Your task to perform on an android device: Search for sushi restaurants on Maps Image 0: 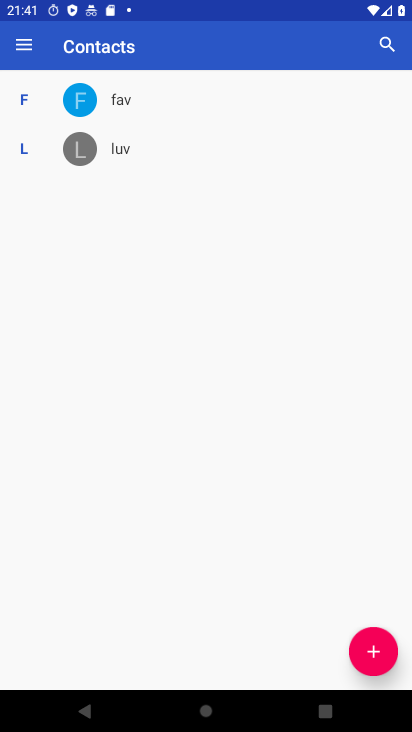
Step 0: click (78, 11)
Your task to perform on an android device: Search for sushi restaurants on Maps Image 1: 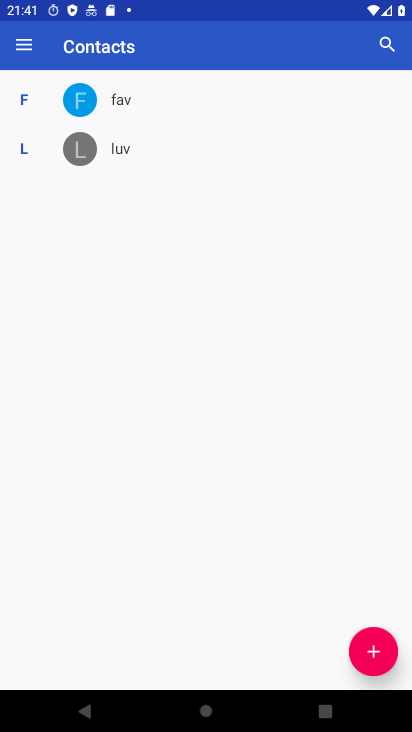
Step 1: press back button
Your task to perform on an android device: Search for sushi restaurants on Maps Image 2: 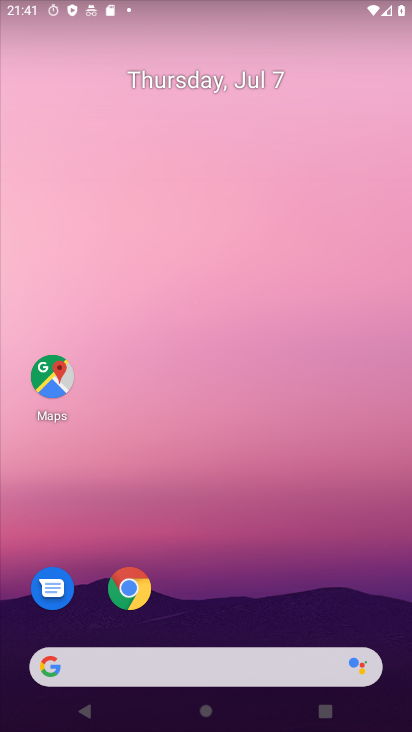
Step 2: drag from (226, 478) to (115, 0)
Your task to perform on an android device: Search for sushi restaurants on Maps Image 3: 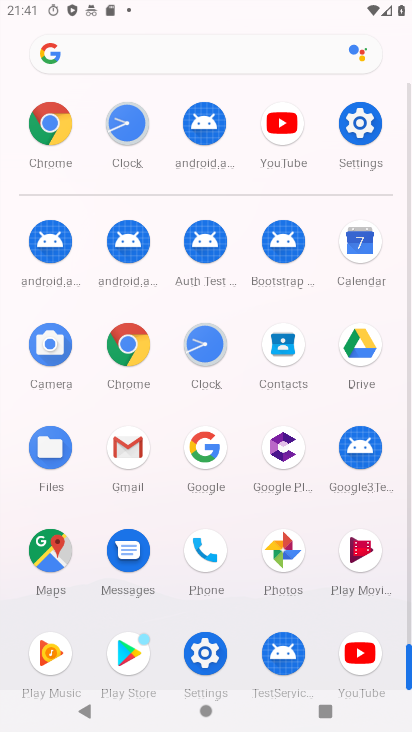
Step 3: click (37, 558)
Your task to perform on an android device: Search for sushi restaurants on Maps Image 4: 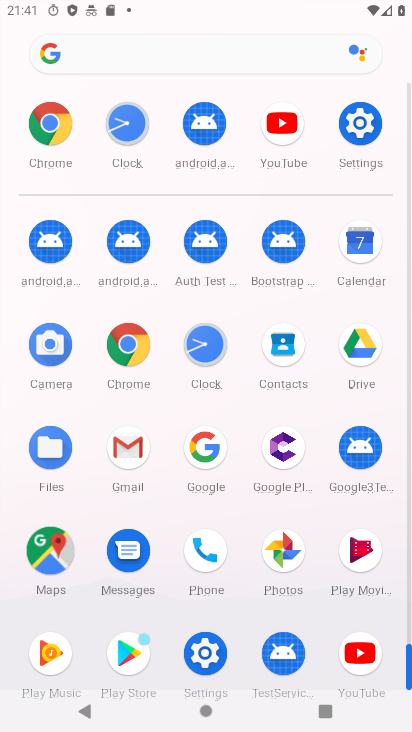
Step 4: click (43, 557)
Your task to perform on an android device: Search for sushi restaurants on Maps Image 5: 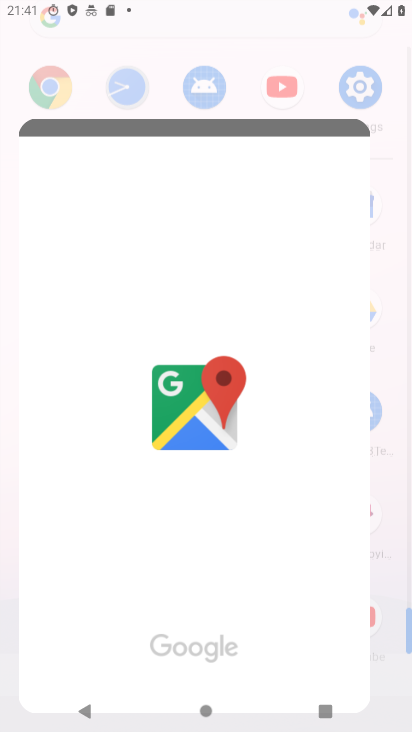
Step 5: click (43, 557)
Your task to perform on an android device: Search for sushi restaurants on Maps Image 6: 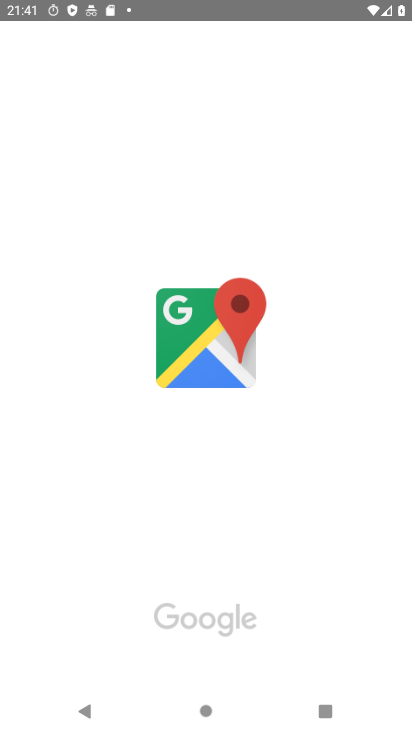
Step 6: click (44, 556)
Your task to perform on an android device: Search for sushi restaurants on Maps Image 7: 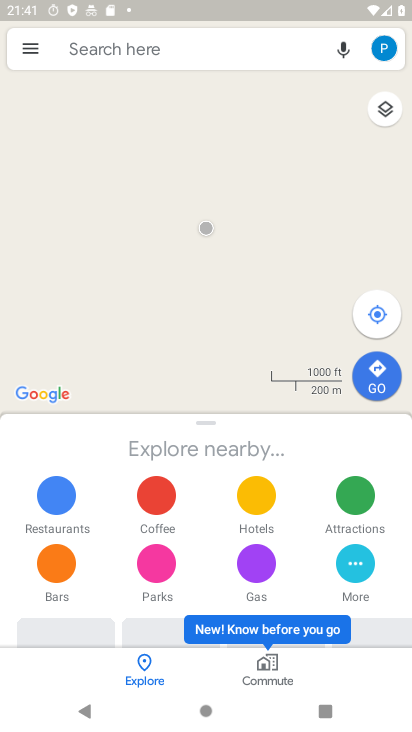
Step 7: click (90, 45)
Your task to perform on an android device: Search for sushi restaurants on Maps Image 8: 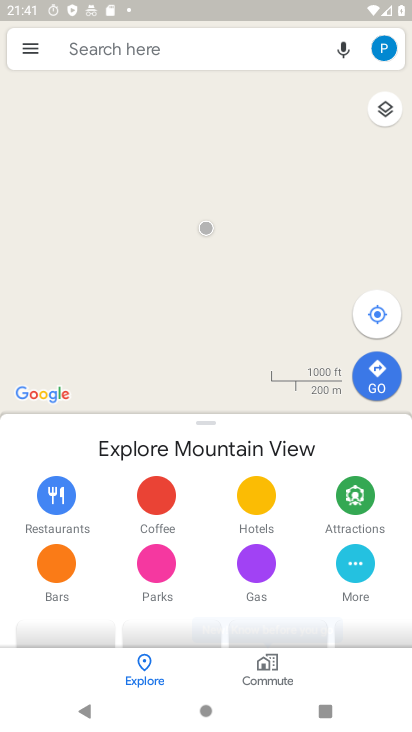
Step 8: click (90, 45)
Your task to perform on an android device: Search for sushi restaurants on Maps Image 9: 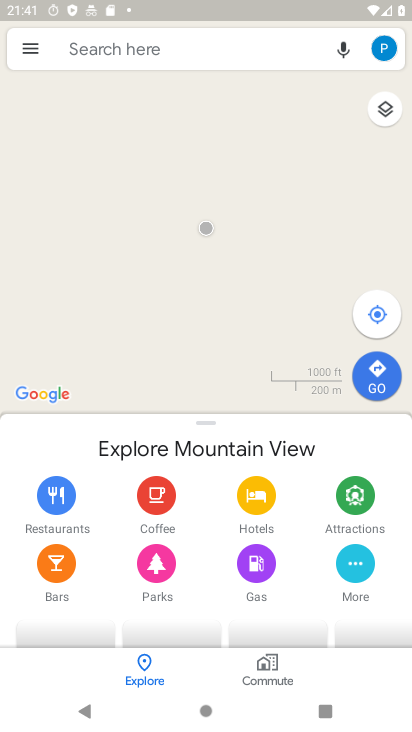
Step 9: click (90, 45)
Your task to perform on an android device: Search for sushi restaurants on Maps Image 10: 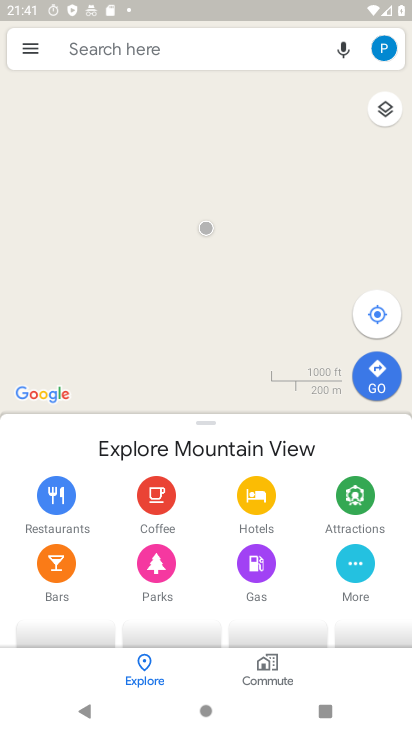
Step 10: click (89, 45)
Your task to perform on an android device: Search for sushi restaurants on Maps Image 11: 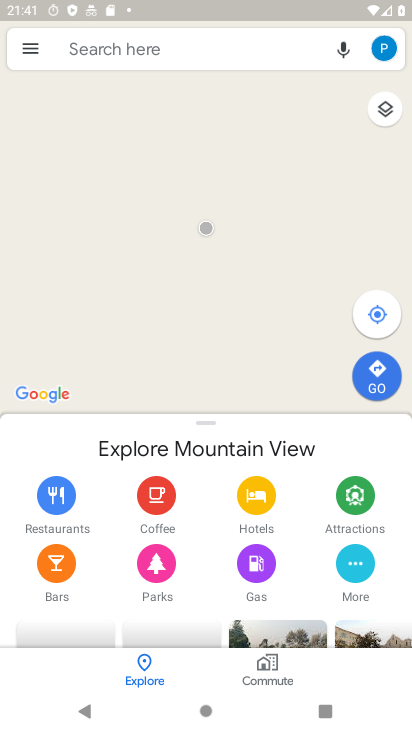
Step 11: click (89, 45)
Your task to perform on an android device: Search for sushi restaurants on Maps Image 12: 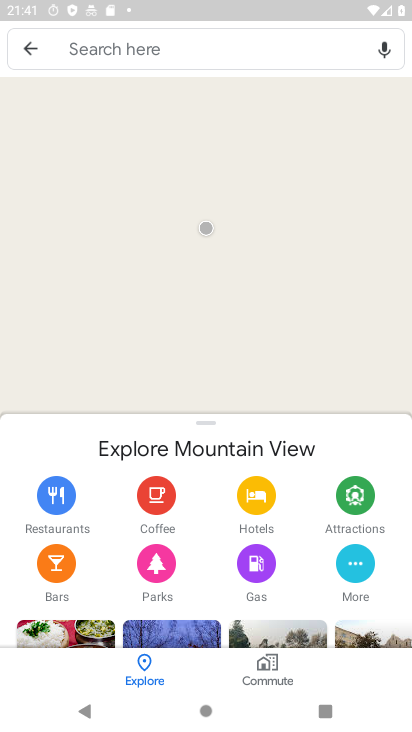
Step 12: click (88, 45)
Your task to perform on an android device: Search for sushi restaurants on Maps Image 13: 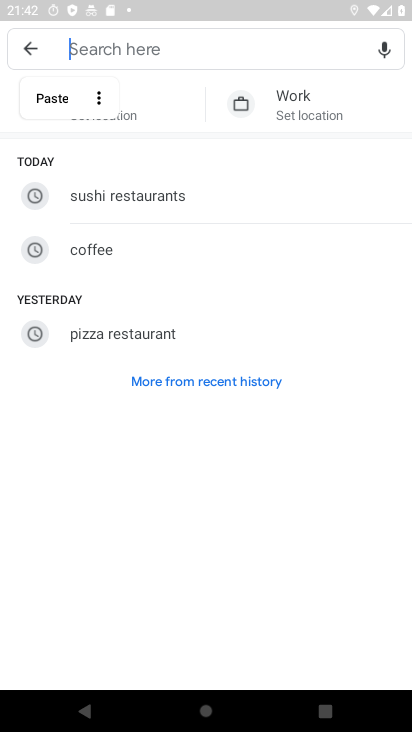
Step 13: type "sushi restaurants"
Your task to perform on an android device: Search for sushi restaurants on Maps Image 14: 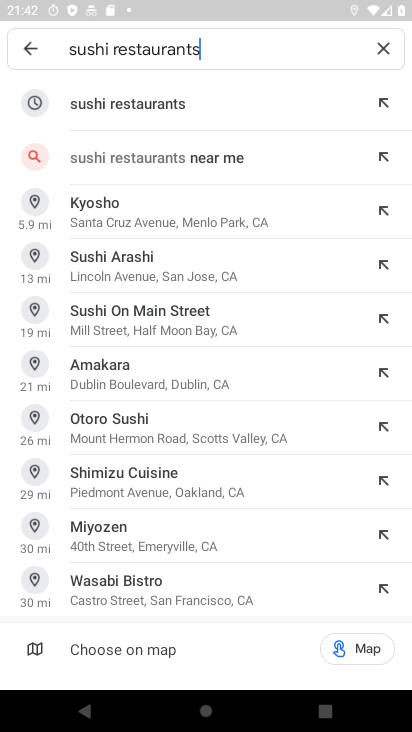
Step 14: click (130, 105)
Your task to perform on an android device: Search for sushi restaurants on Maps Image 15: 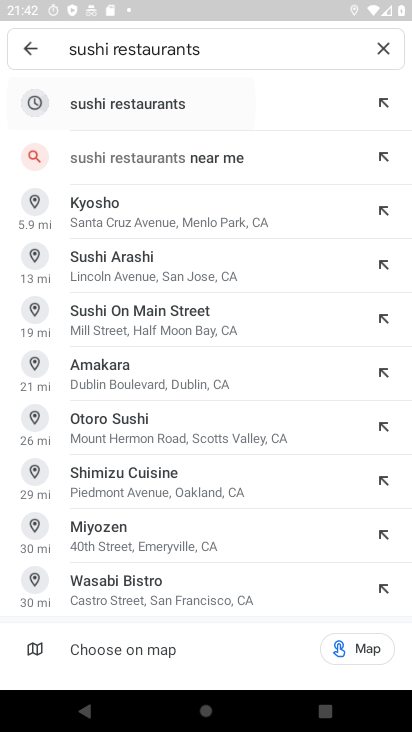
Step 15: click (130, 105)
Your task to perform on an android device: Search for sushi restaurants on Maps Image 16: 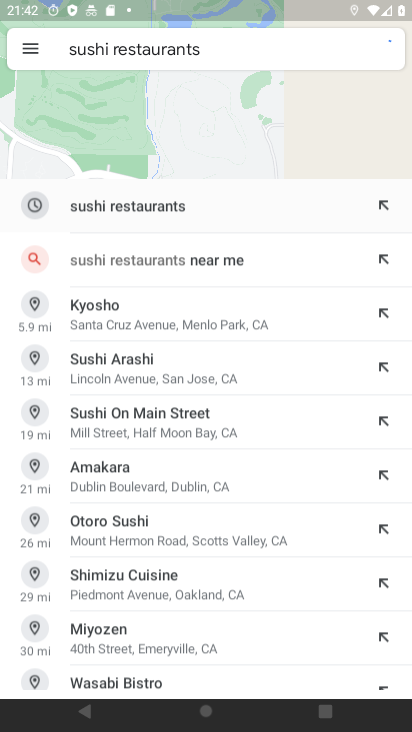
Step 16: click (130, 105)
Your task to perform on an android device: Search for sushi restaurants on Maps Image 17: 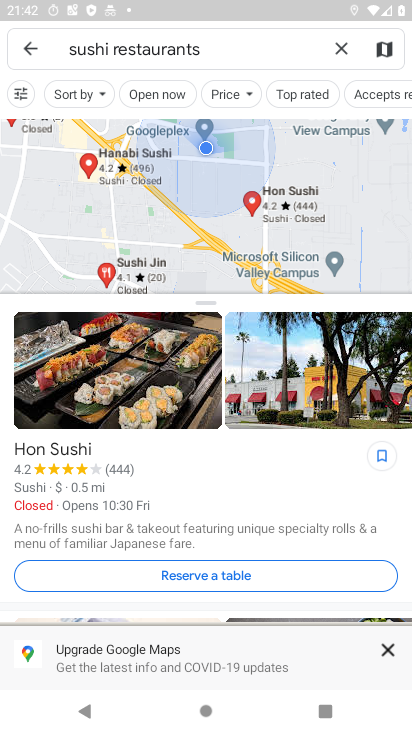
Step 17: task complete